Your task to perform on an android device: star an email in the gmail app Image 0: 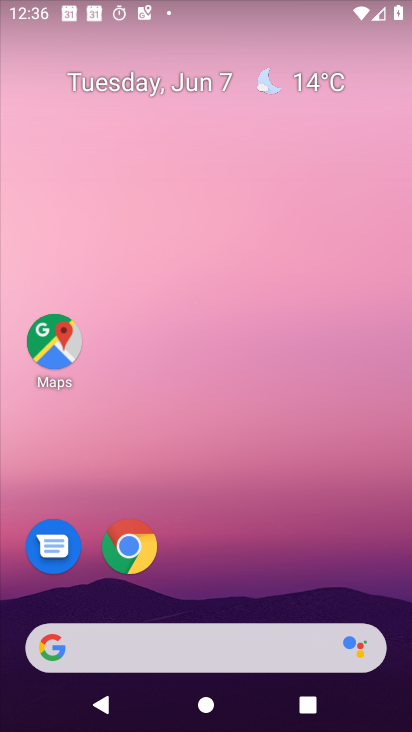
Step 0: drag from (198, 546) to (312, 98)
Your task to perform on an android device: star an email in the gmail app Image 1: 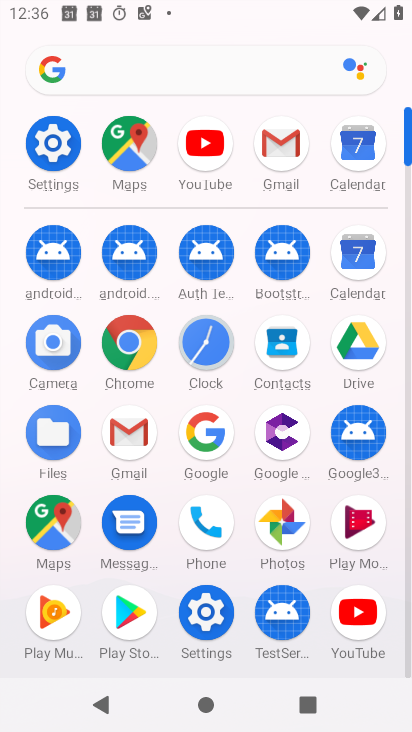
Step 1: click (133, 436)
Your task to perform on an android device: star an email in the gmail app Image 2: 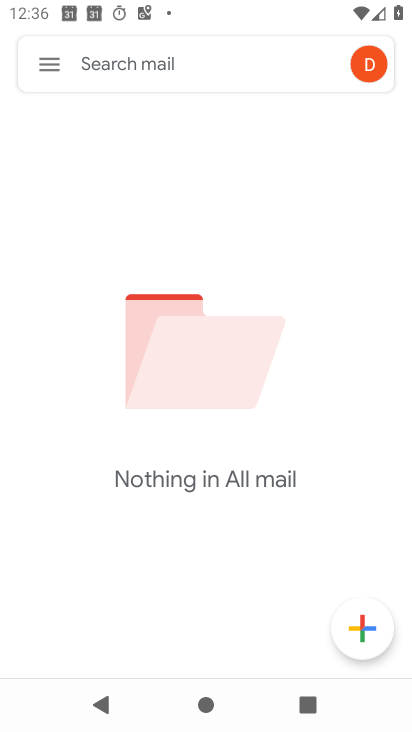
Step 2: task complete